Your task to perform on an android device: turn on notifications settings in the gmail app Image 0: 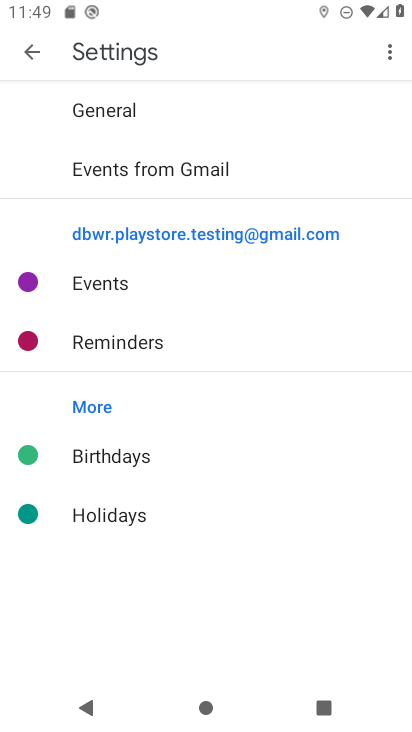
Step 0: press back button
Your task to perform on an android device: turn on notifications settings in the gmail app Image 1: 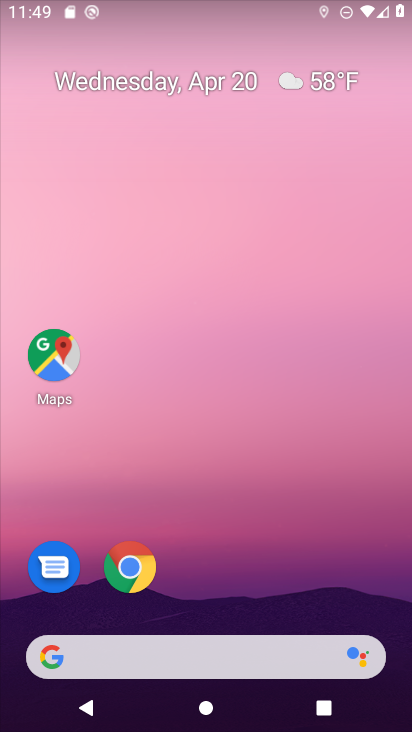
Step 1: drag from (200, 546) to (208, 492)
Your task to perform on an android device: turn on notifications settings in the gmail app Image 2: 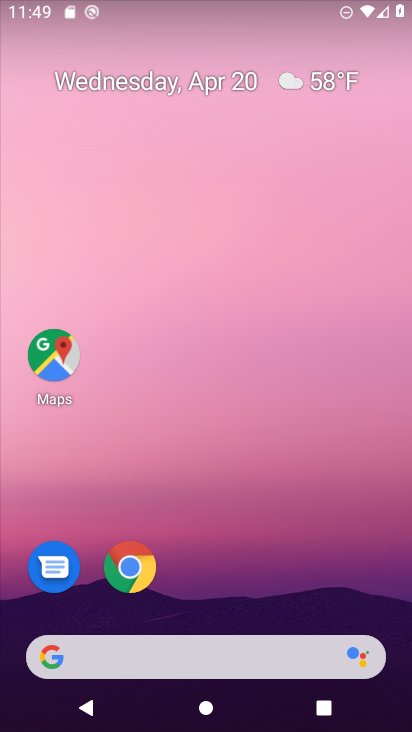
Step 2: drag from (202, 366) to (233, 200)
Your task to perform on an android device: turn on notifications settings in the gmail app Image 3: 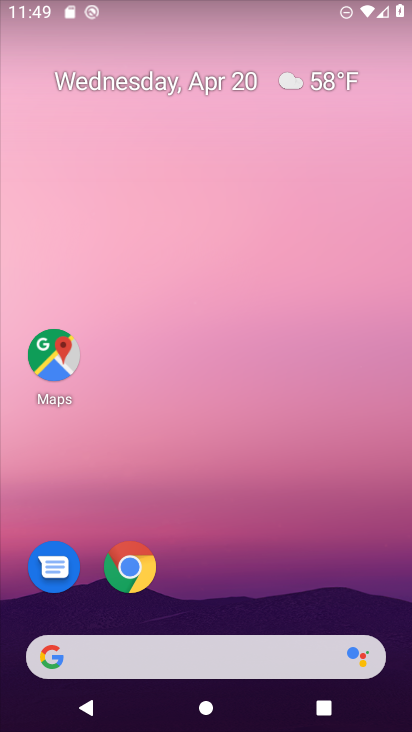
Step 3: drag from (213, 625) to (264, 146)
Your task to perform on an android device: turn on notifications settings in the gmail app Image 4: 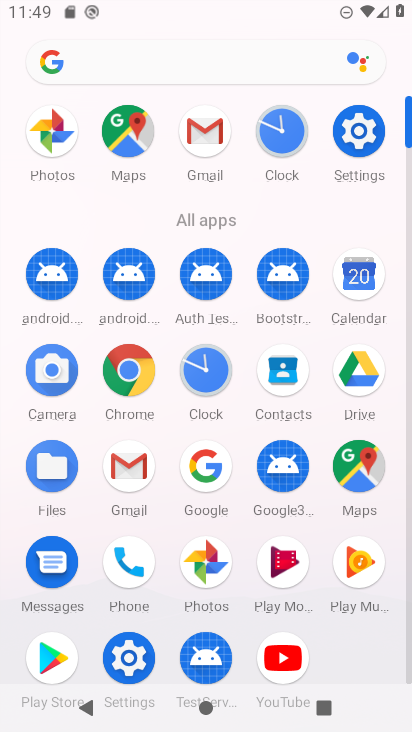
Step 4: click (143, 474)
Your task to perform on an android device: turn on notifications settings in the gmail app Image 5: 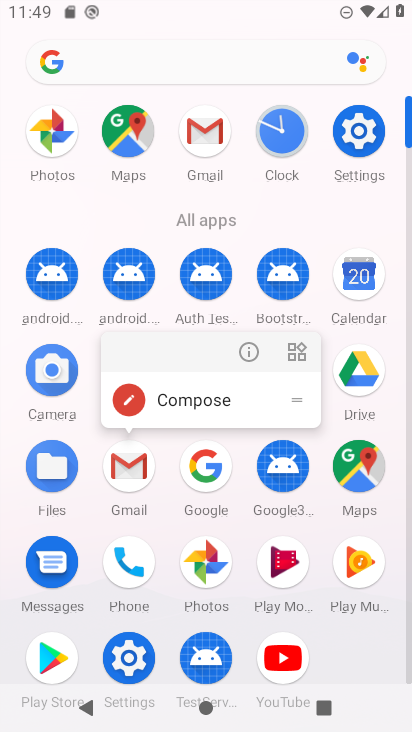
Step 5: click (132, 471)
Your task to perform on an android device: turn on notifications settings in the gmail app Image 6: 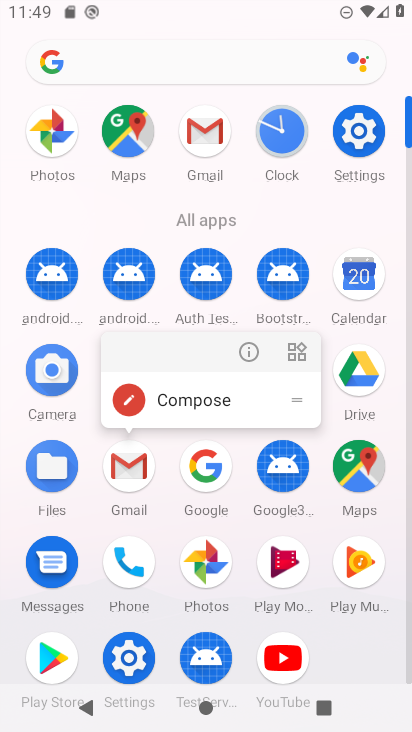
Step 6: click (138, 467)
Your task to perform on an android device: turn on notifications settings in the gmail app Image 7: 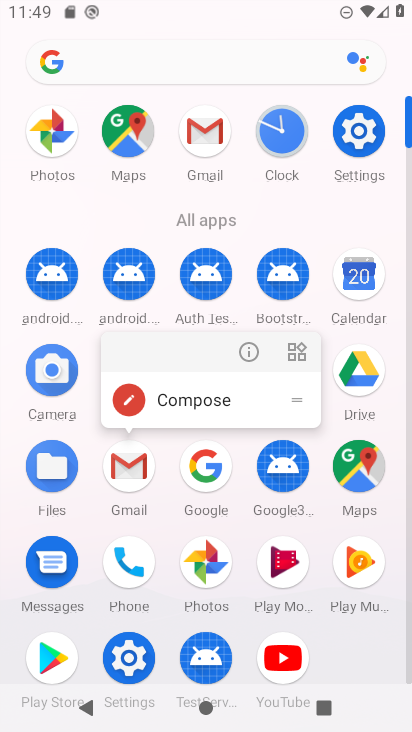
Step 7: click (137, 469)
Your task to perform on an android device: turn on notifications settings in the gmail app Image 8: 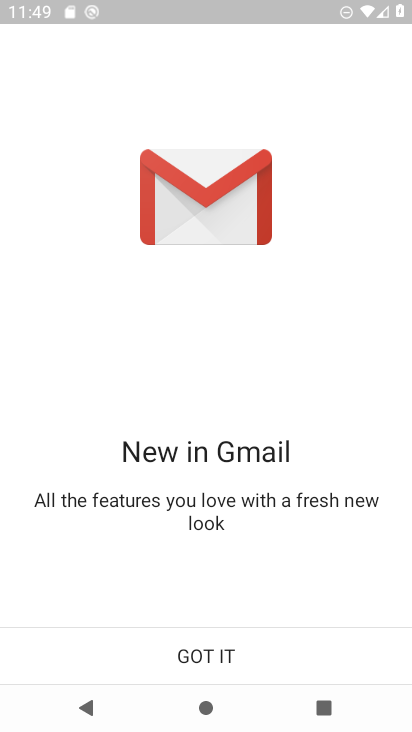
Step 8: click (202, 662)
Your task to perform on an android device: turn on notifications settings in the gmail app Image 9: 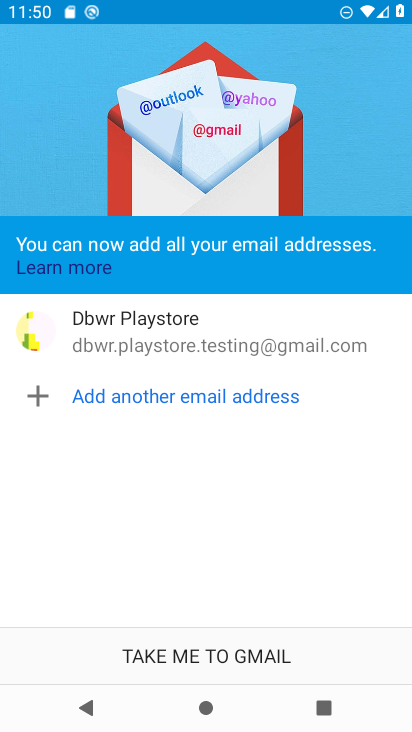
Step 9: click (255, 659)
Your task to perform on an android device: turn on notifications settings in the gmail app Image 10: 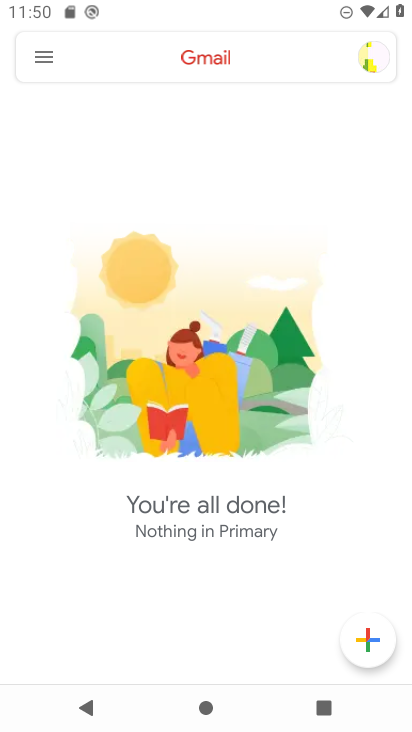
Step 10: click (44, 65)
Your task to perform on an android device: turn on notifications settings in the gmail app Image 11: 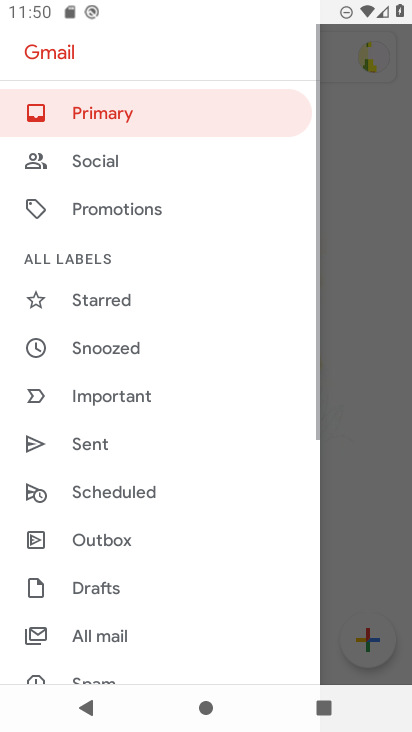
Step 11: drag from (181, 587) to (255, 223)
Your task to perform on an android device: turn on notifications settings in the gmail app Image 12: 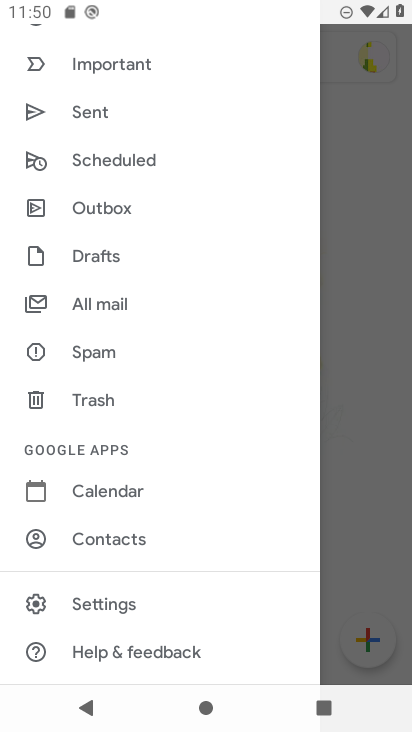
Step 12: click (146, 605)
Your task to perform on an android device: turn on notifications settings in the gmail app Image 13: 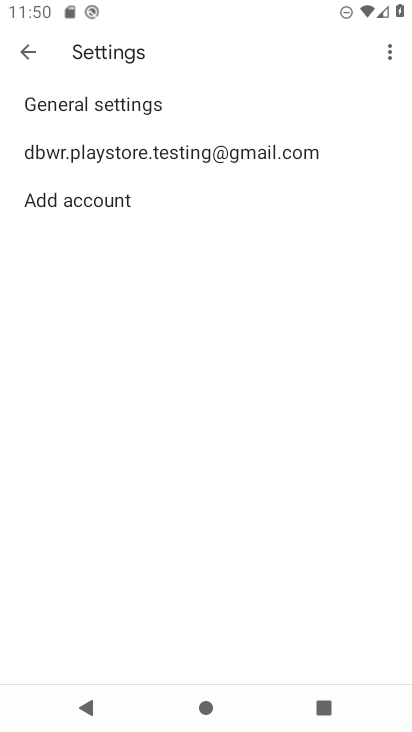
Step 13: click (193, 159)
Your task to perform on an android device: turn on notifications settings in the gmail app Image 14: 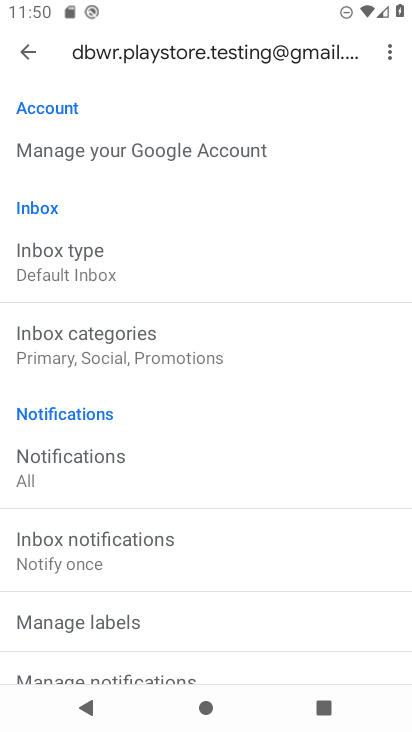
Step 14: drag from (213, 318) to (232, 238)
Your task to perform on an android device: turn on notifications settings in the gmail app Image 15: 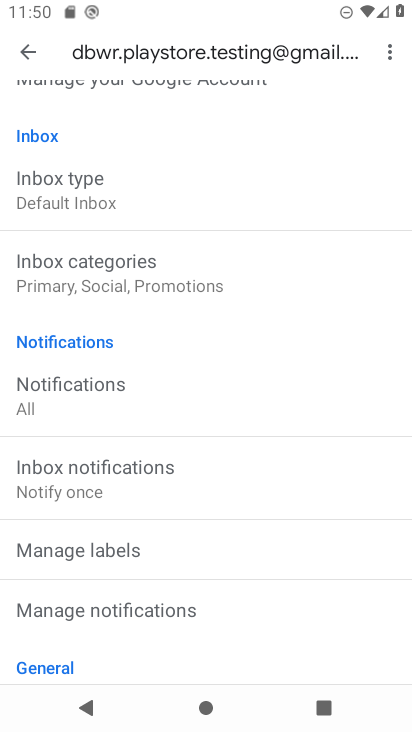
Step 15: click (158, 614)
Your task to perform on an android device: turn on notifications settings in the gmail app Image 16: 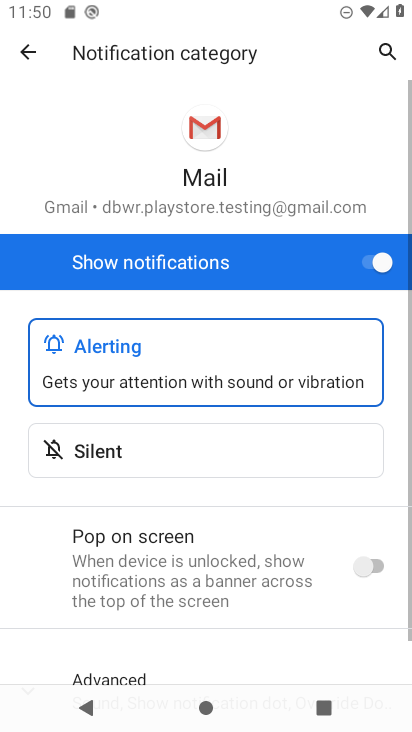
Step 16: task complete